Your task to perform on an android device: all mails in gmail Image 0: 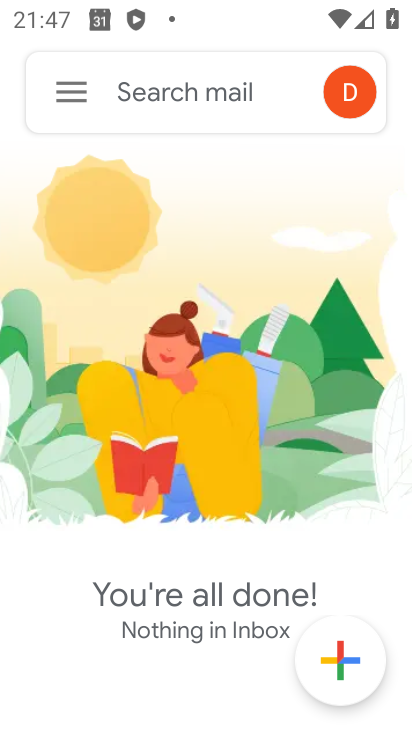
Step 0: click (67, 95)
Your task to perform on an android device: all mails in gmail Image 1: 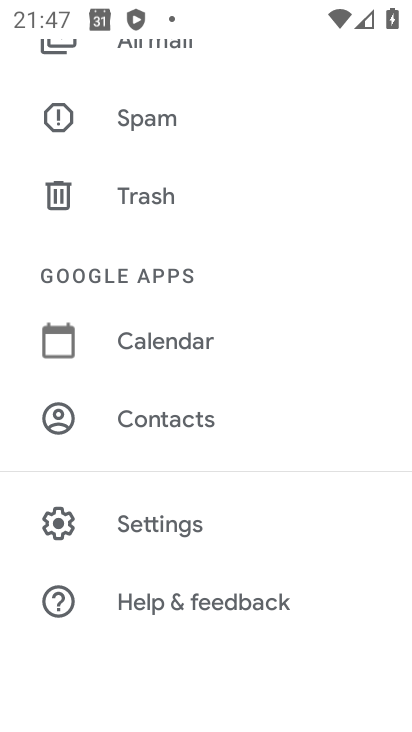
Step 1: click (133, 45)
Your task to perform on an android device: all mails in gmail Image 2: 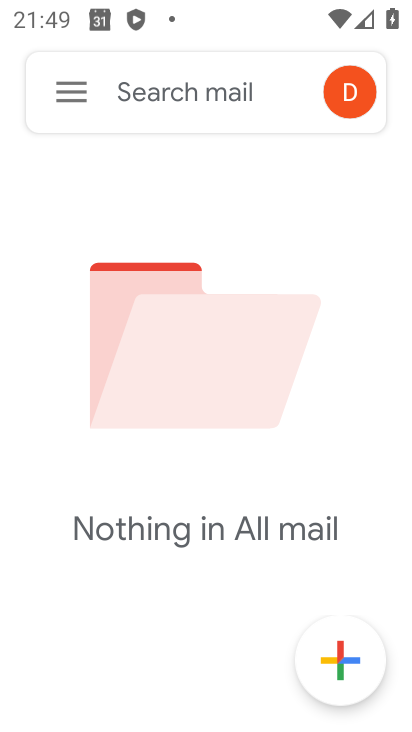
Step 2: task complete